Your task to perform on an android device: What's on my calendar tomorrow? Image 0: 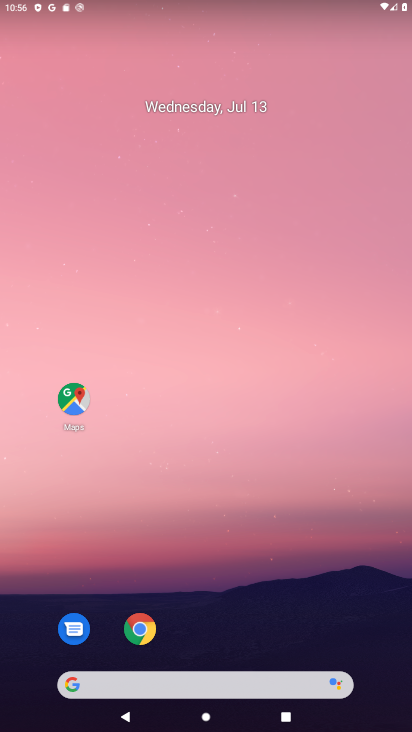
Step 0: drag from (292, 635) to (227, 228)
Your task to perform on an android device: What's on my calendar tomorrow? Image 1: 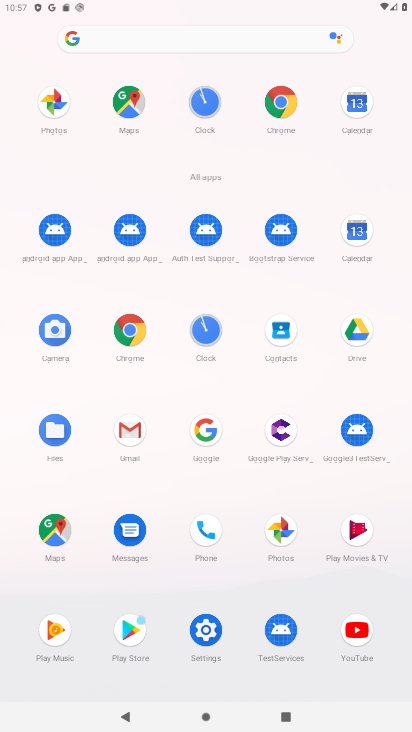
Step 1: click (354, 98)
Your task to perform on an android device: What's on my calendar tomorrow? Image 2: 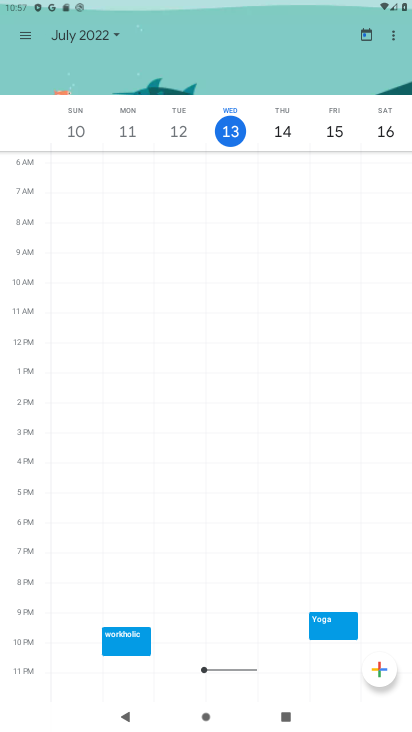
Step 2: click (25, 28)
Your task to perform on an android device: What's on my calendar tomorrow? Image 3: 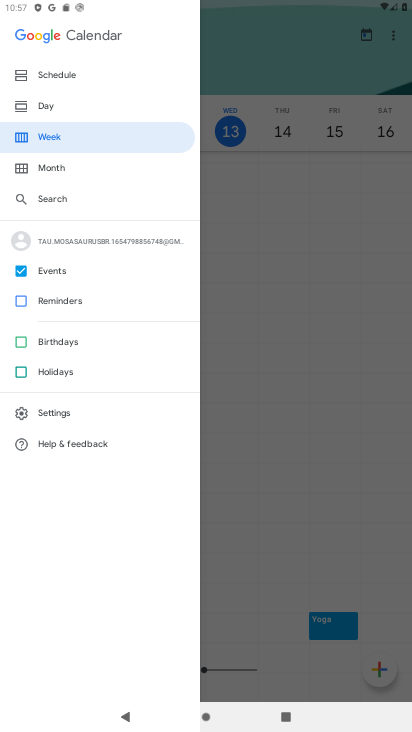
Step 3: click (62, 99)
Your task to perform on an android device: What's on my calendar tomorrow? Image 4: 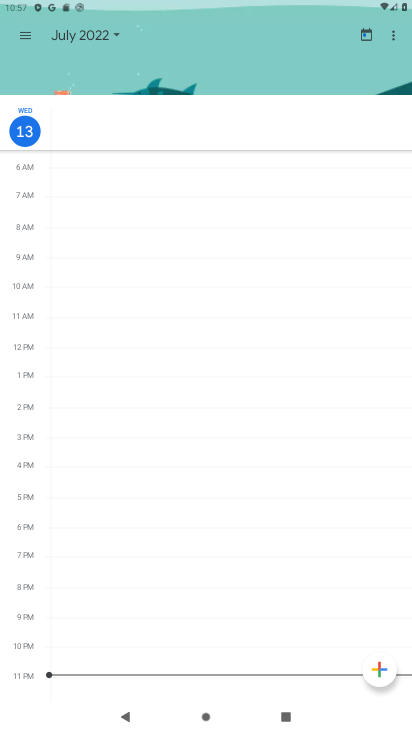
Step 4: task complete